Your task to perform on an android device: Open Android settings Image 0: 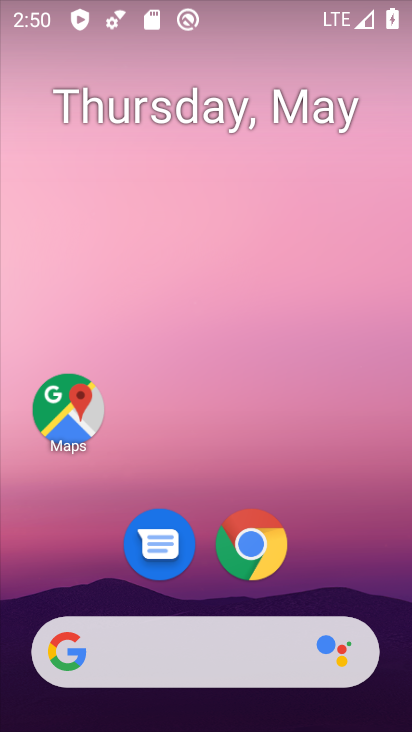
Step 0: drag from (257, 712) to (194, 36)
Your task to perform on an android device: Open Android settings Image 1: 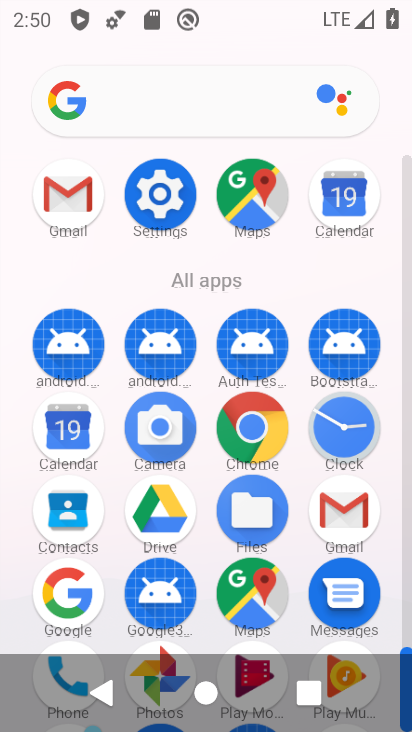
Step 1: click (149, 198)
Your task to perform on an android device: Open Android settings Image 2: 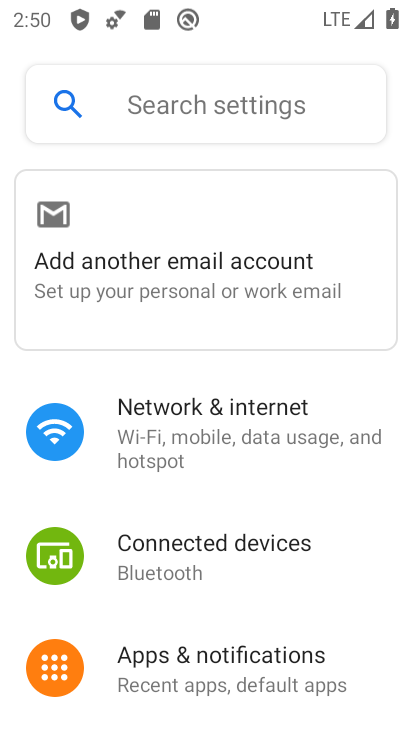
Step 2: task complete